Your task to perform on an android device: Search for vegetarian restaurants on Maps Image 0: 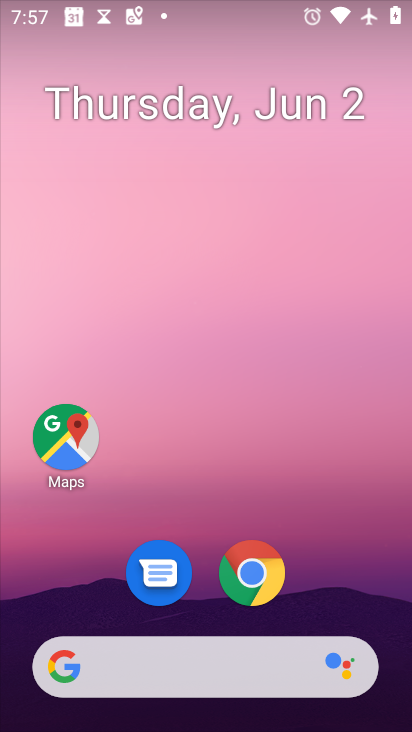
Step 0: press home button
Your task to perform on an android device: Search for vegetarian restaurants on Maps Image 1: 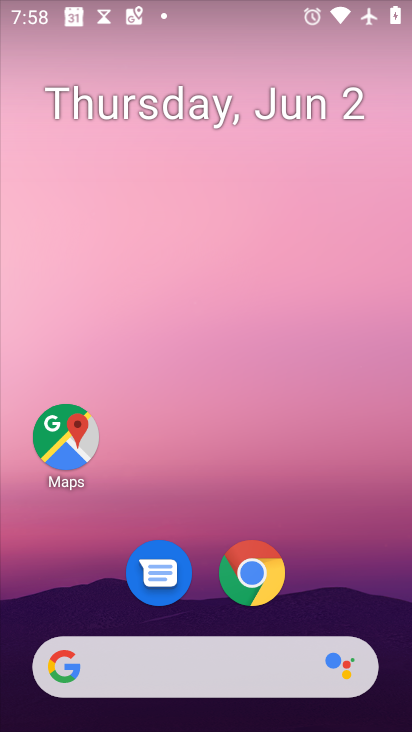
Step 1: click (66, 450)
Your task to perform on an android device: Search for vegetarian restaurants on Maps Image 2: 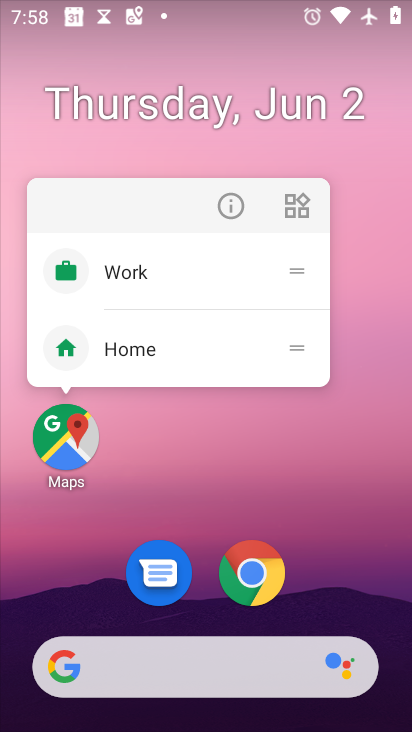
Step 2: click (76, 440)
Your task to perform on an android device: Search for vegetarian restaurants on Maps Image 3: 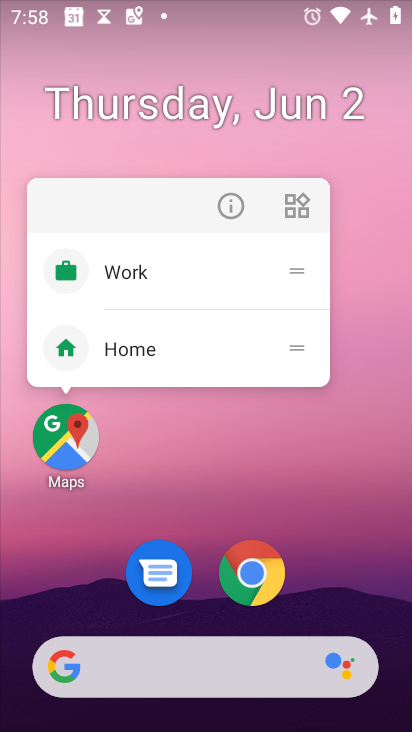
Step 3: click (61, 445)
Your task to perform on an android device: Search for vegetarian restaurants on Maps Image 4: 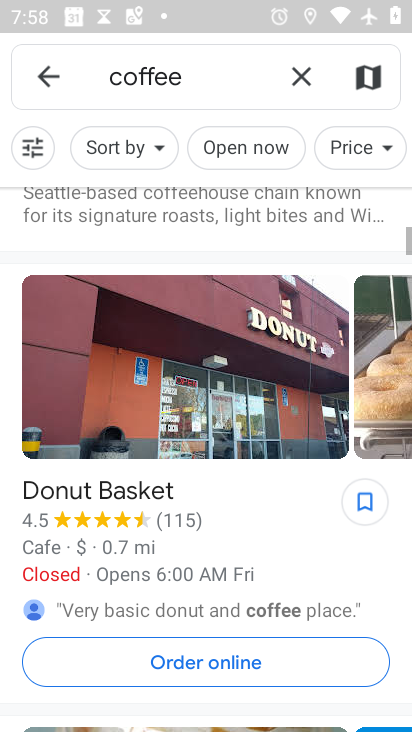
Step 4: click (298, 82)
Your task to perform on an android device: Search for vegetarian restaurants on Maps Image 5: 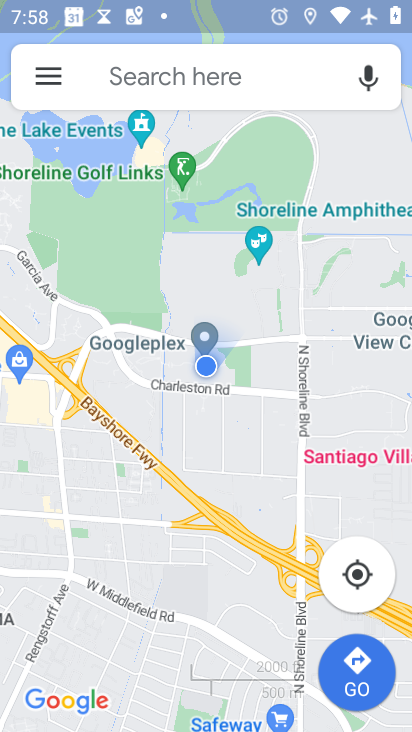
Step 5: click (182, 70)
Your task to perform on an android device: Search for vegetarian restaurants on Maps Image 6: 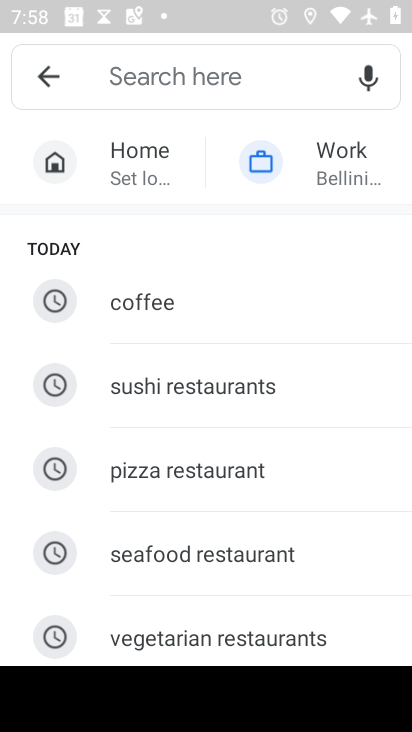
Step 6: click (219, 639)
Your task to perform on an android device: Search for vegetarian restaurants on Maps Image 7: 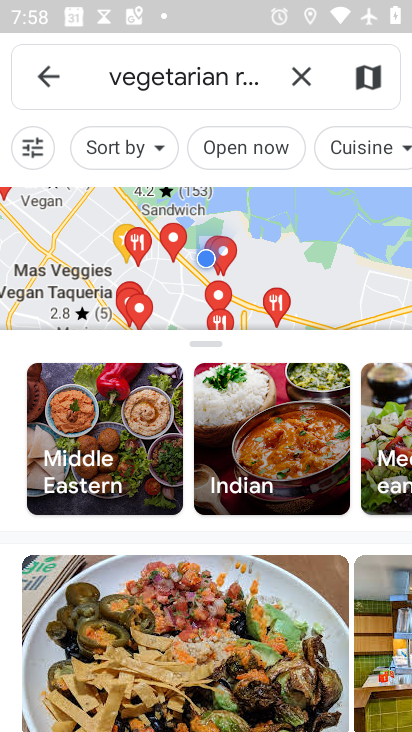
Step 7: task complete